Your task to perform on an android device: check android version Image 0: 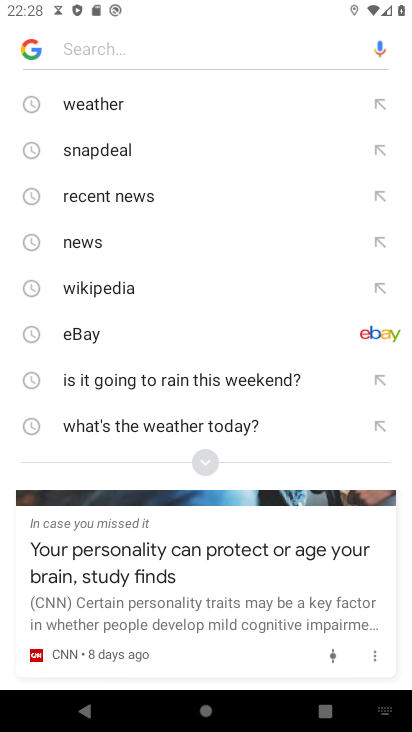
Step 0: press home button
Your task to perform on an android device: check android version Image 1: 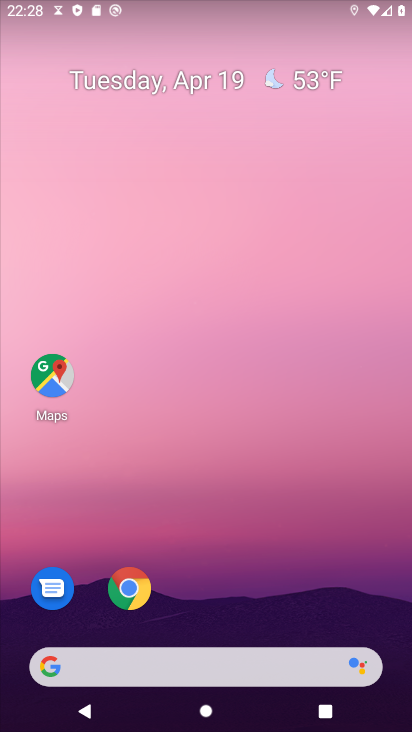
Step 1: drag from (223, 566) to (261, 39)
Your task to perform on an android device: check android version Image 2: 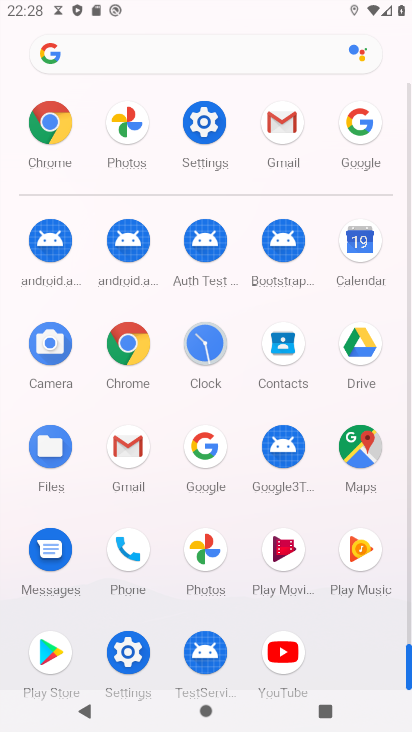
Step 2: click (203, 122)
Your task to perform on an android device: check android version Image 3: 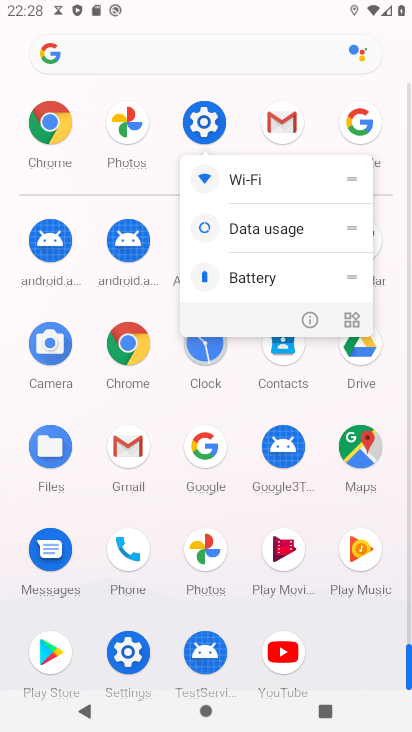
Step 3: click (203, 122)
Your task to perform on an android device: check android version Image 4: 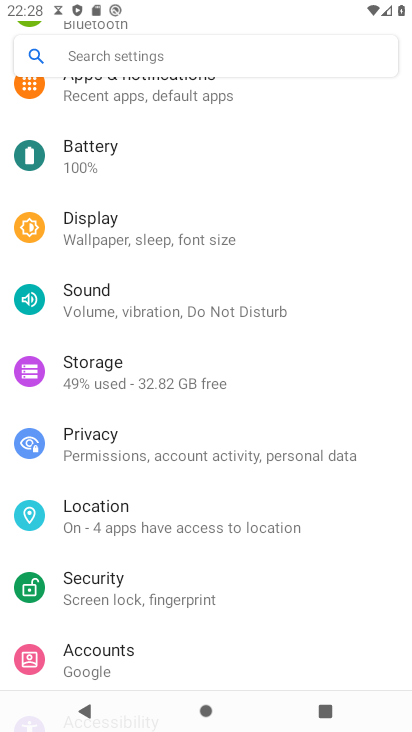
Step 4: drag from (161, 584) to (200, 440)
Your task to perform on an android device: check android version Image 5: 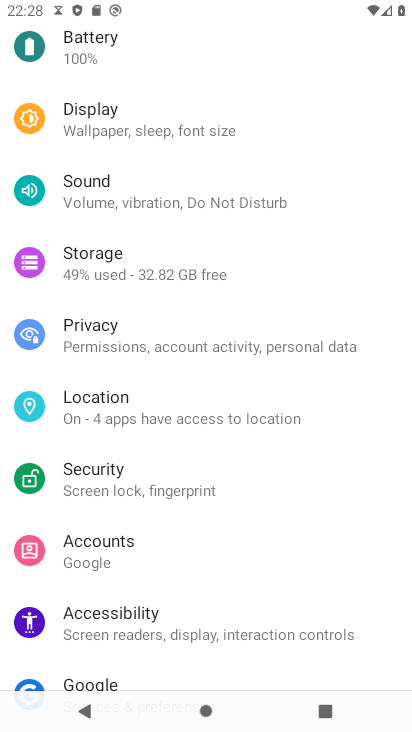
Step 5: drag from (168, 581) to (224, 425)
Your task to perform on an android device: check android version Image 6: 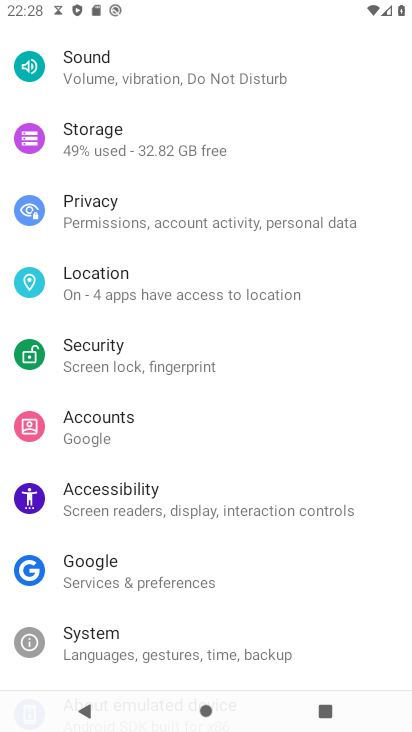
Step 6: drag from (183, 539) to (240, 393)
Your task to perform on an android device: check android version Image 7: 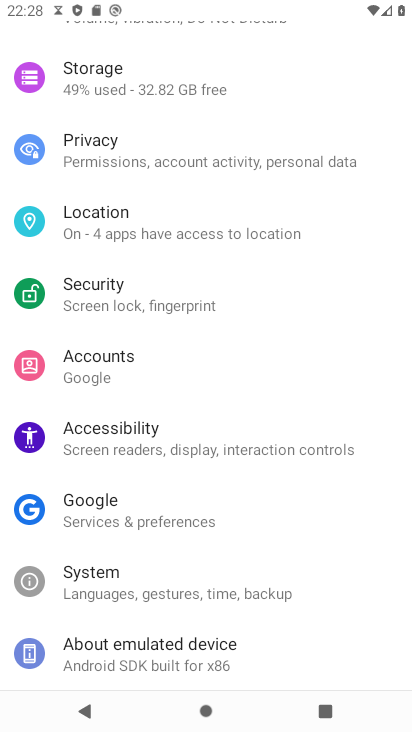
Step 7: click (185, 639)
Your task to perform on an android device: check android version Image 8: 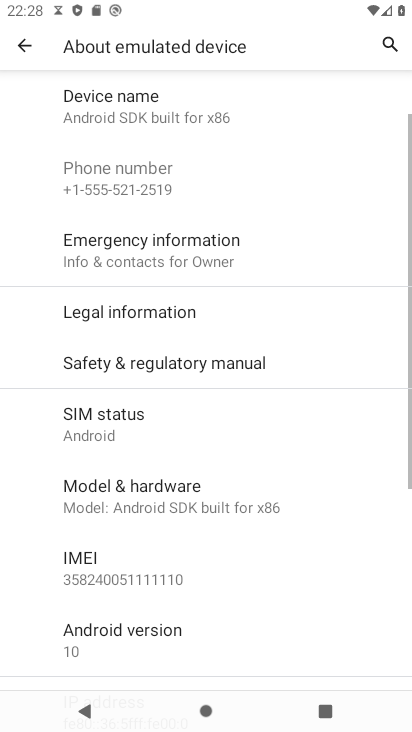
Step 8: click (178, 629)
Your task to perform on an android device: check android version Image 9: 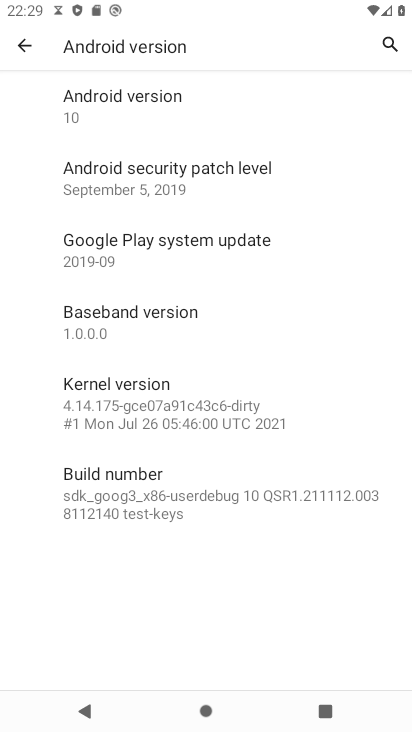
Step 9: task complete